Your task to perform on an android device: turn on location history Image 0: 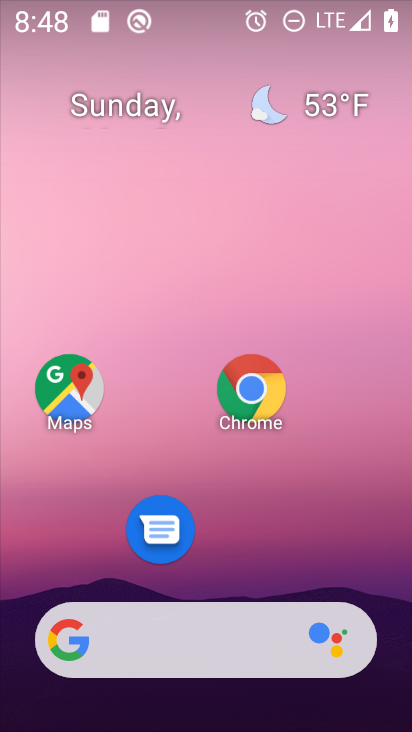
Step 0: drag from (244, 560) to (351, 12)
Your task to perform on an android device: turn on location history Image 1: 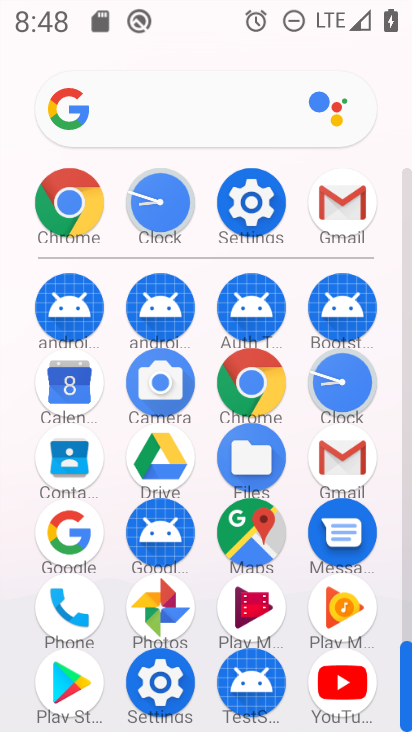
Step 1: click (246, 205)
Your task to perform on an android device: turn on location history Image 2: 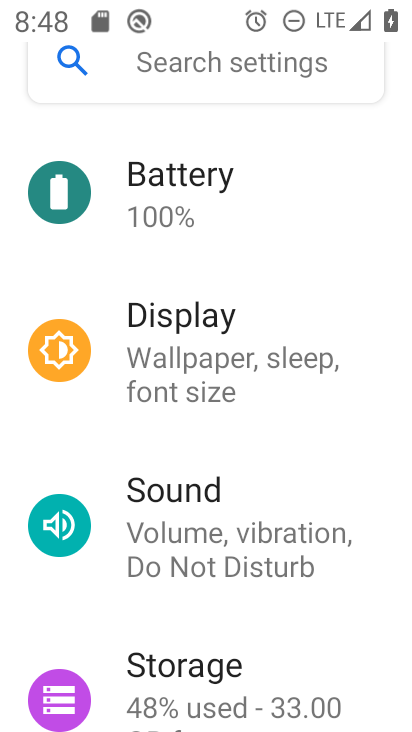
Step 2: drag from (148, 532) to (243, 162)
Your task to perform on an android device: turn on location history Image 3: 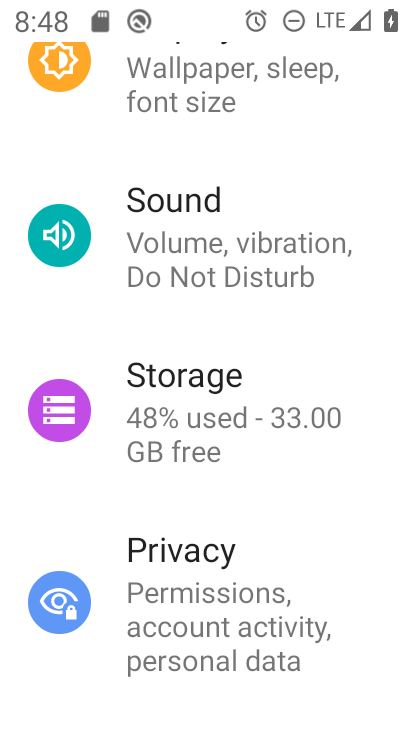
Step 3: drag from (236, 579) to (290, 296)
Your task to perform on an android device: turn on location history Image 4: 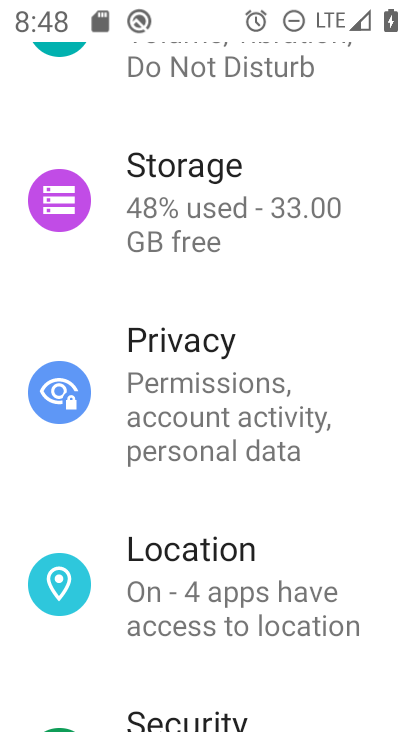
Step 4: click (193, 575)
Your task to perform on an android device: turn on location history Image 5: 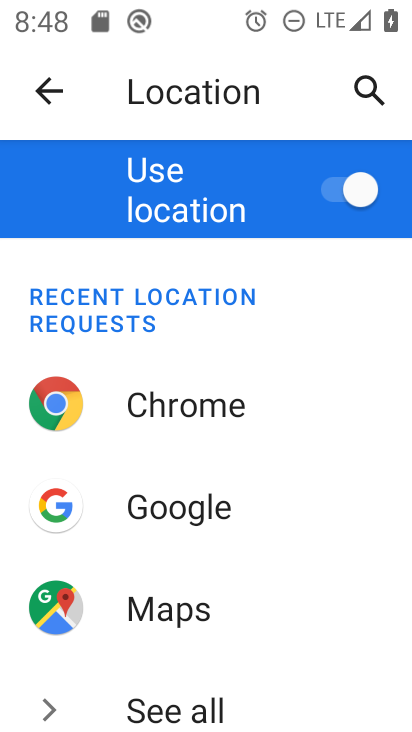
Step 5: drag from (188, 565) to (240, 183)
Your task to perform on an android device: turn on location history Image 6: 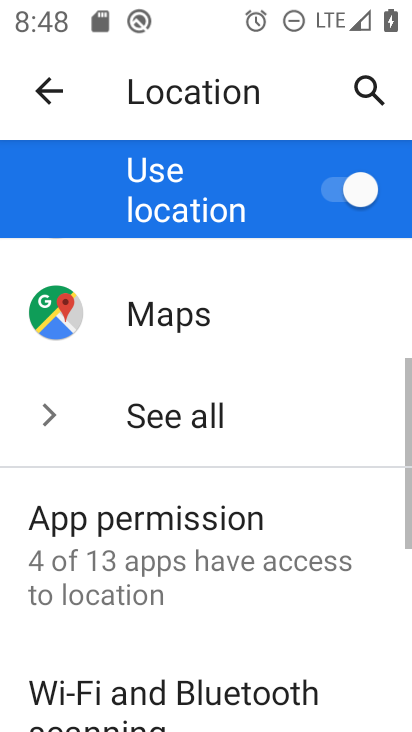
Step 6: drag from (172, 622) to (209, 289)
Your task to perform on an android device: turn on location history Image 7: 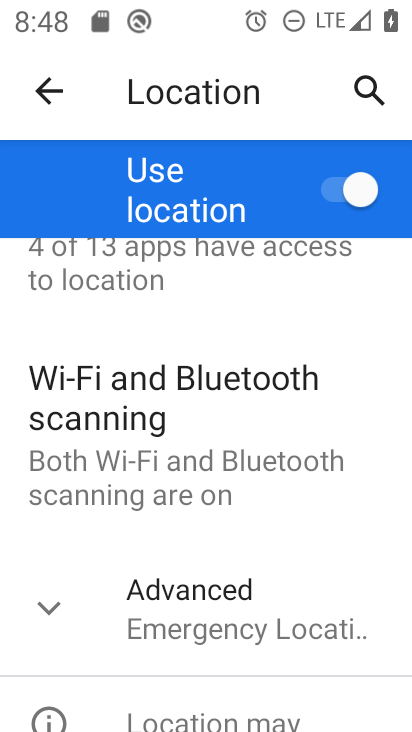
Step 7: click (177, 623)
Your task to perform on an android device: turn on location history Image 8: 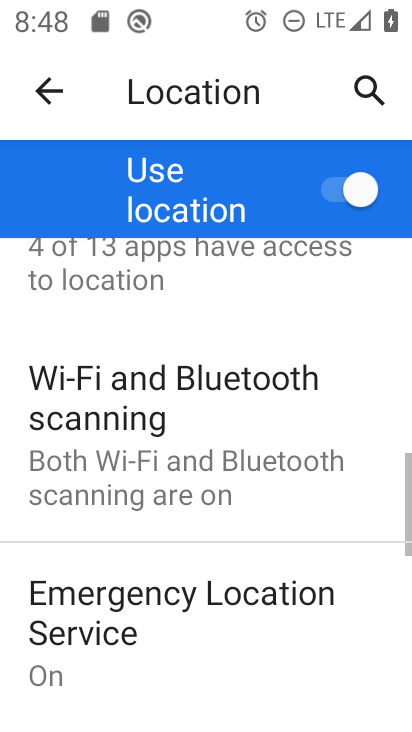
Step 8: drag from (183, 620) to (213, 283)
Your task to perform on an android device: turn on location history Image 9: 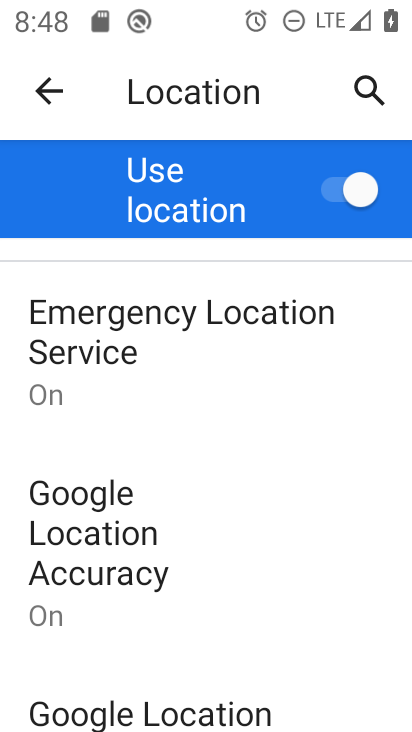
Step 9: drag from (160, 587) to (188, 247)
Your task to perform on an android device: turn on location history Image 10: 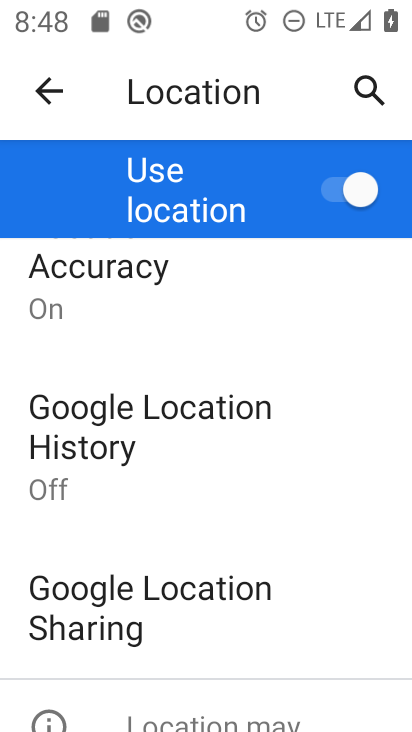
Step 10: click (118, 438)
Your task to perform on an android device: turn on location history Image 11: 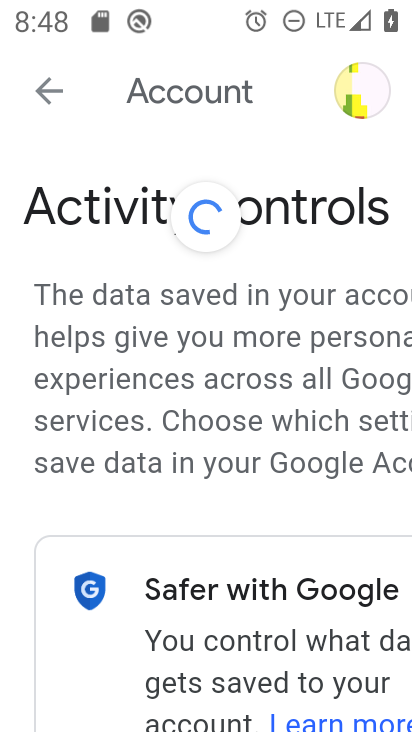
Step 11: task complete